Your task to perform on an android device: Is it going to rain tomorrow? Image 0: 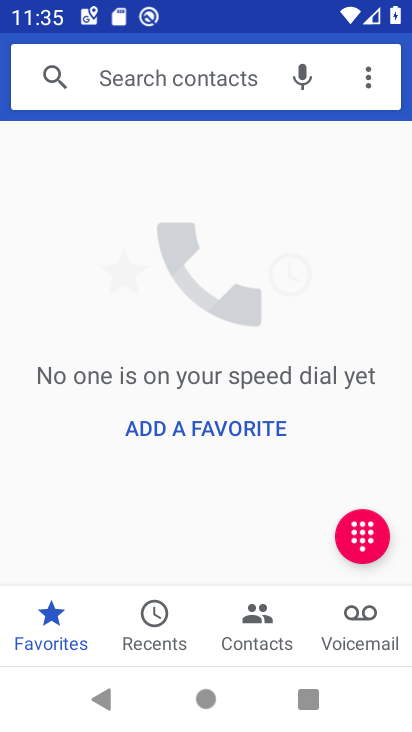
Step 0: press back button
Your task to perform on an android device: Is it going to rain tomorrow? Image 1: 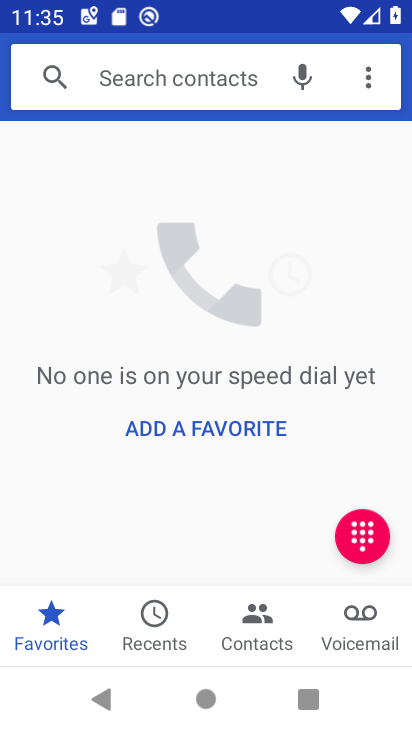
Step 1: task complete